Your task to perform on an android device: View the shopping cart on target.com. Search for "acer nitro" on target.com, select the first entry, add it to the cart, then select checkout. Image 0: 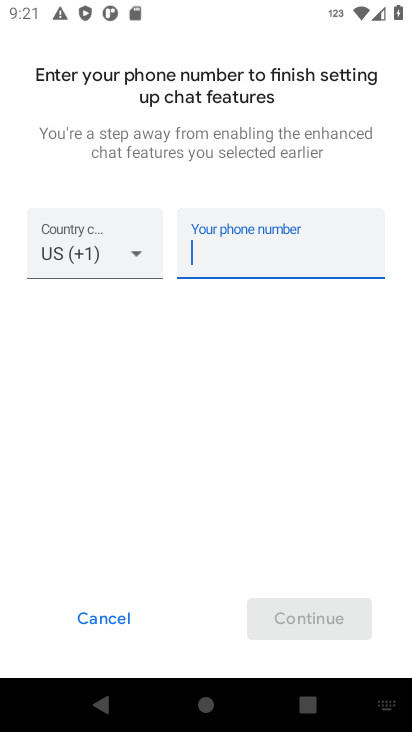
Step 0: press home button
Your task to perform on an android device: View the shopping cart on target.com. Search for "acer nitro" on target.com, select the first entry, add it to the cart, then select checkout. Image 1: 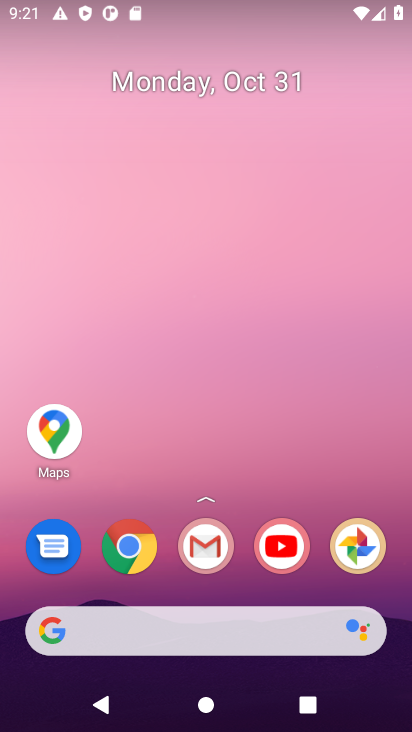
Step 1: click (127, 548)
Your task to perform on an android device: View the shopping cart on target.com. Search for "acer nitro" on target.com, select the first entry, add it to the cart, then select checkout. Image 2: 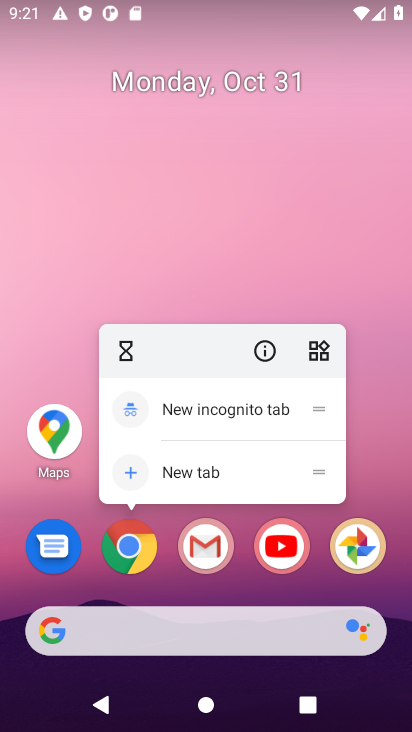
Step 2: click (136, 557)
Your task to perform on an android device: View the shopping cart on target.com. Search for "acer nitro" on target.com, select the first entry, add it to the cart, then select checkout. Image 3: 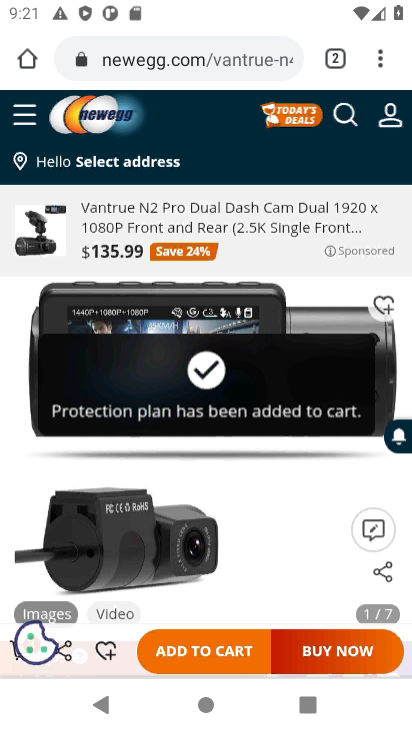
Step 3: click (159, 65)
Your task to perform on an android device: View the shopping cart on target.com. Search for "acer nitro" on target.com, select the first entry, add it to the cart, then select checkout. Image 4: 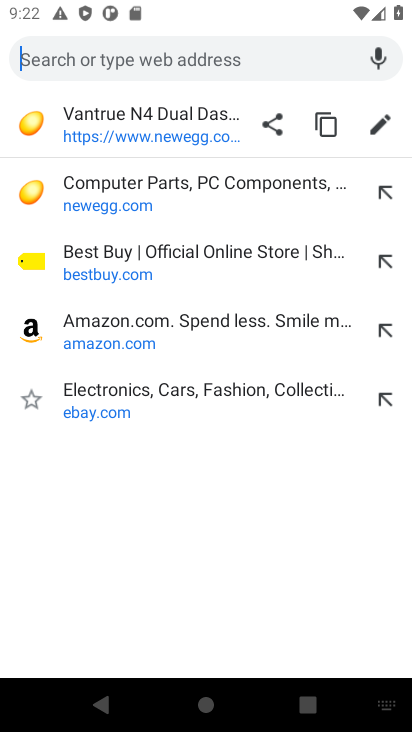
Step 4: type "target.com"
Your task to perform on an android device: View the shopping cart on target.com. Search for "acer nitro" on target.com, select the first entry, add it to the cart, then select checkout. Image 5: 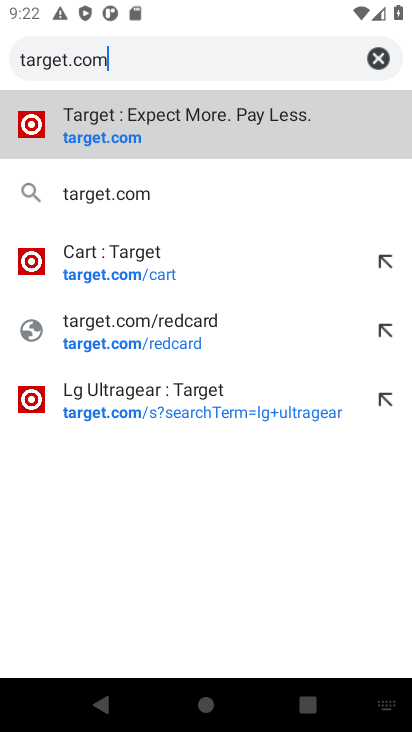
Step 5: press enter
Your task to perform on an android device: View the shopping cart on target.com. Search for "acer nitro" on target.com, select the first entry, add it to the cart, then select checkout. Image 6: 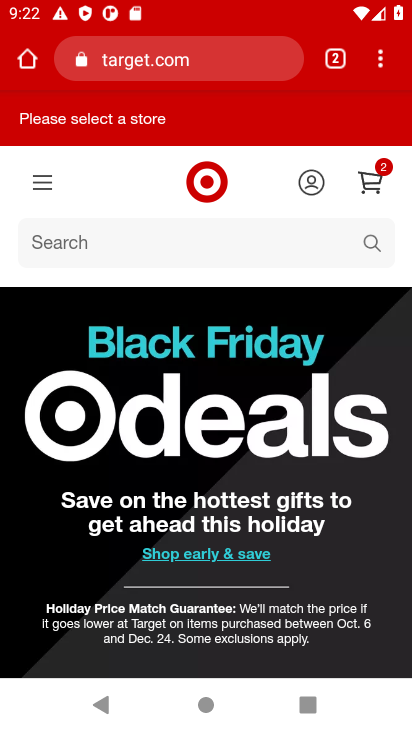
Step 6: click (377, 183)
Your task to perform on an android device: View the shopping cart on target.com. Search for "acer nitro" on target.com, select the first entry, add it to the cart, then select checkout. Image 7: 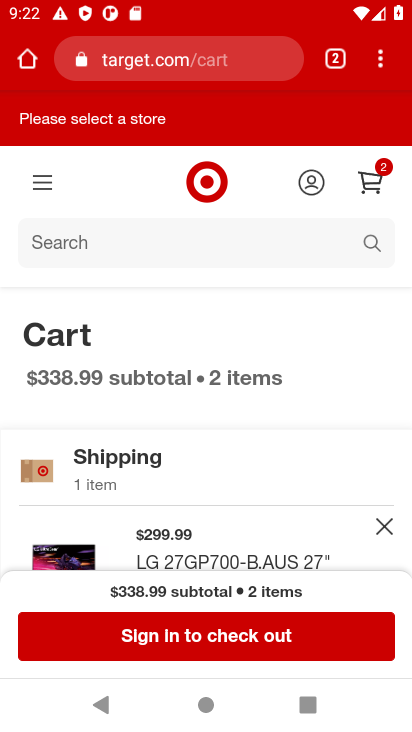
Step 7: click (368, 241)
Your task to perform on an android device: View the shopping cart on target.com. Search for "acer nitro" on target.com, select the first entry, add it to the cart, then select checkout. Image 8: 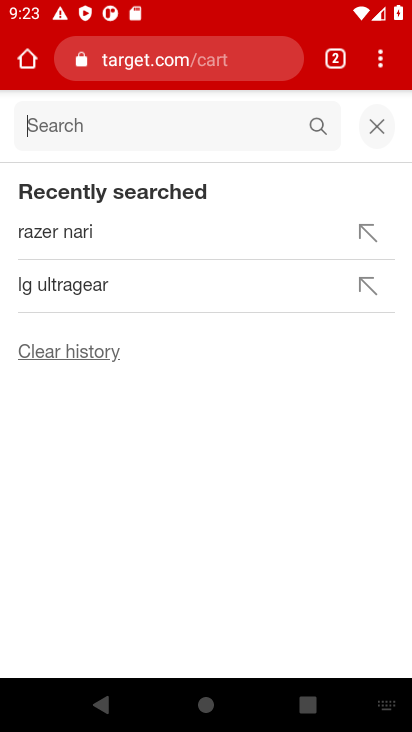
Step 8: type "acer nitro"
Your task to perform on an android device: View the shopping cart on target.com. Search for "acer nitro" on target.com, select the first entry, add it to the cart, then select checkout. Image 9: 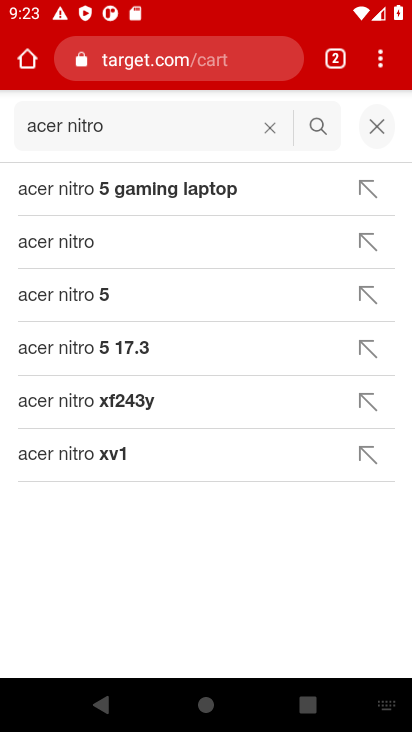
Step 9: press enter
Your task to perform on an android device: View the shopping cart on target.com. Search for "acer nitro" on target.com, select the first entry, add it to the cart, then select checkout. Image 10: 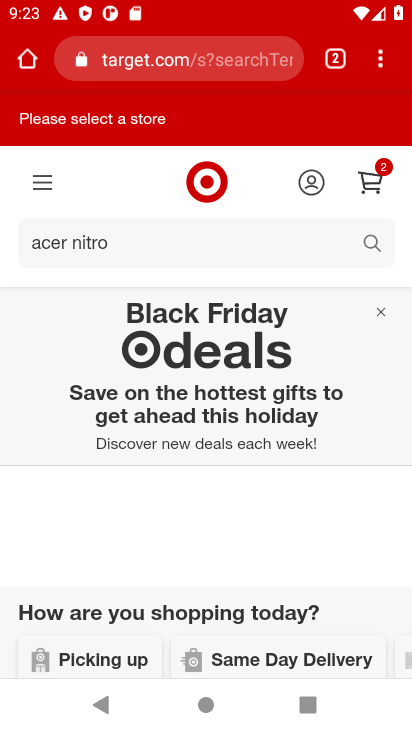
Step 10: drag from (348, 450) to (341, 82)
Your task to perform on an android device: View the shopping cart on target.com. Search for "acer nitro" on target.com, select the first entry, add it to the cart, then select checkout. Image 11: 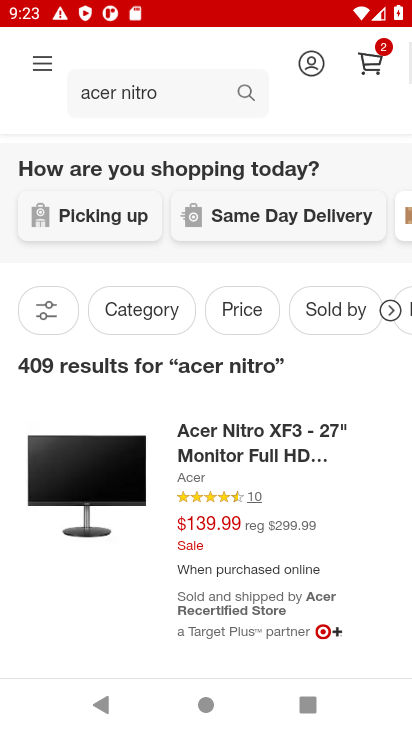
Step 11: drag from (231, 577) to (309, 388)
Your task to perform on an android device: View the shopping cart on target.com. Search for "acer nitro" on target.com, select the first entry, add it to the cart, then select checkout. Image 12: 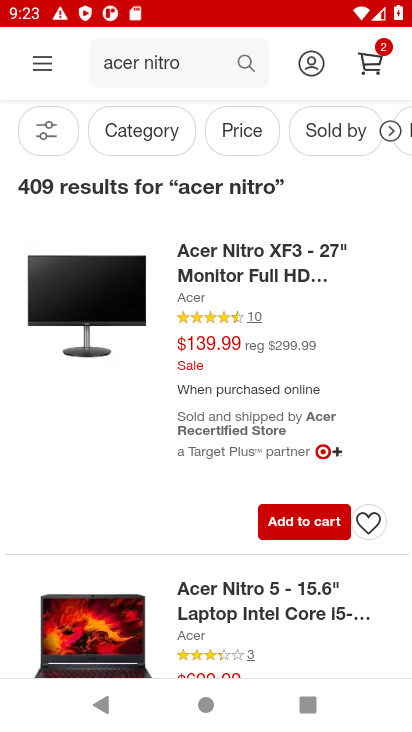
Step 12: click (286, 528)
Your task to perform on an android device: View the shopping cart on target.com. Search for "acer nitro" on target.com, select the first entry, add it to the cart, then select checkout. Image 13: 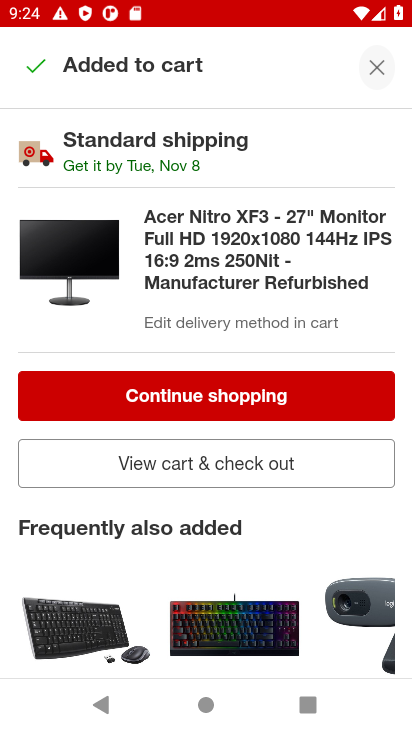
Step 13: click (178, 473)
Your task to perform on an android device: View the shopping cart on target.com. Search for "acer nitro" on target.com, select the first entry, add it to the cart, then select checkout. Image 14: 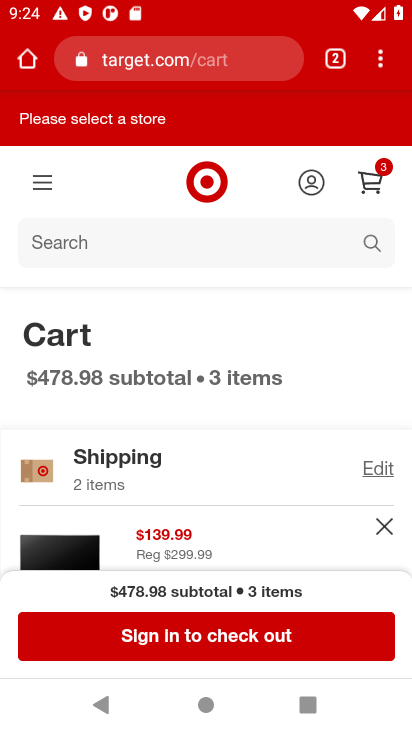
Step 14: click (217, 645)
Your task to perform on an android device: View the shopping cart on target.com. Search for "acer nitro" on target.com, select the first entry, add it to the cart, then select checkout. Image 15: 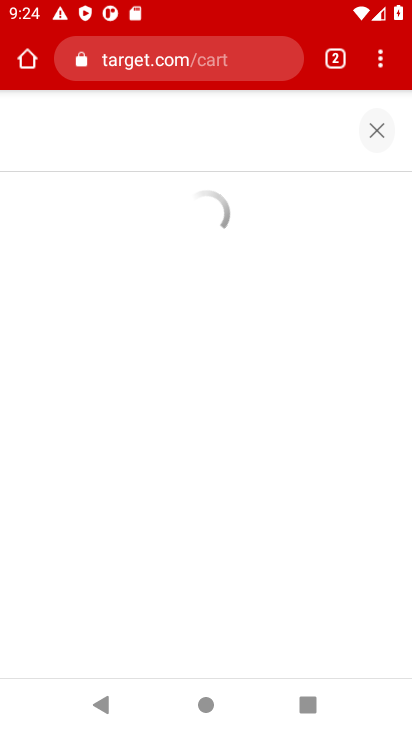
Step 15: task complete